Your task to perform on an android device: turn on airplane mode Image 0: 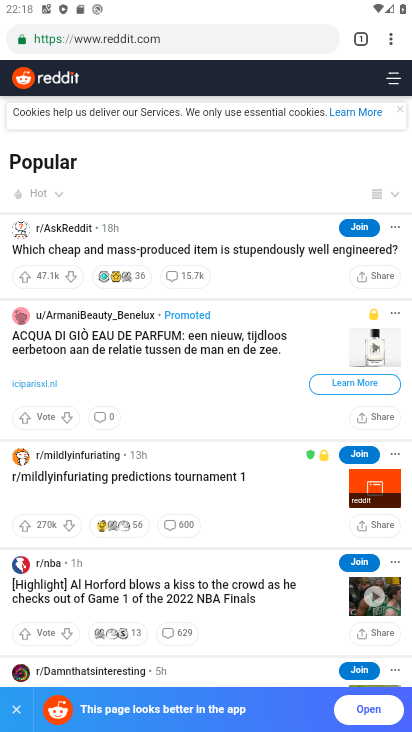
Step 0: press home button
Your task to perform on an android device: turn on airplane mode Image 1: 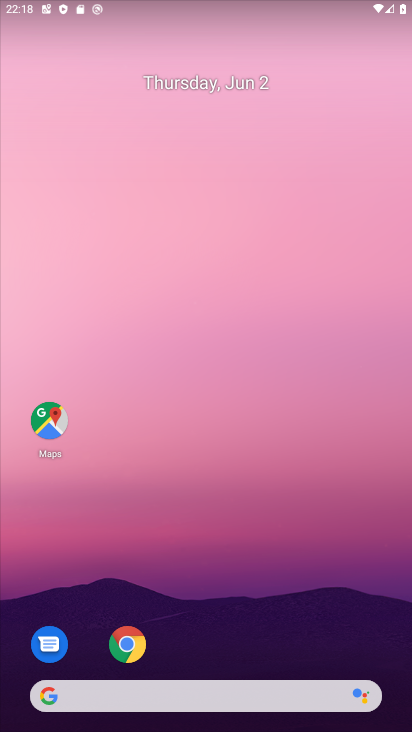
Step 1: click (52, 426)
Your task to perform on an android device: turn on airplane mode Image 2: 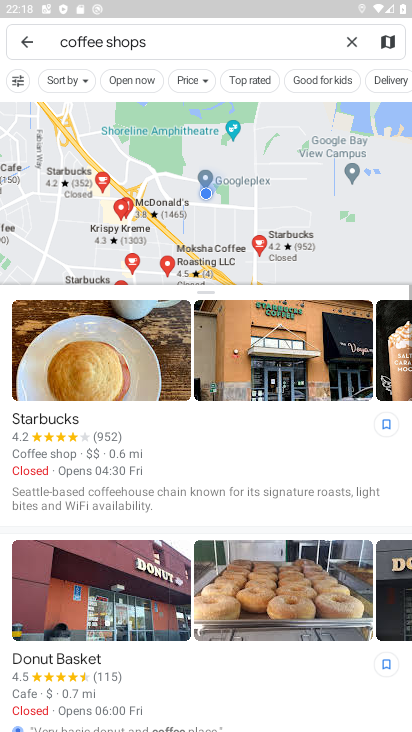
Step 2: press home button
Your task to perform on an android device: turn on airplane mode Image 3: 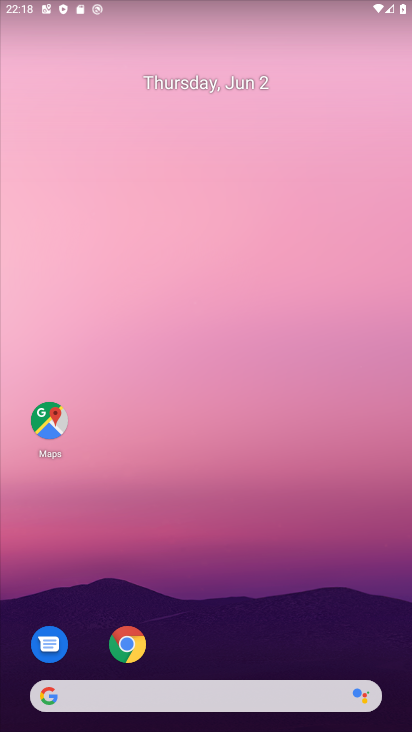
Step 3: drag from (191, 657) to (149, 216)
Your task to perform on an android device: turn on airplane mode Image 4: 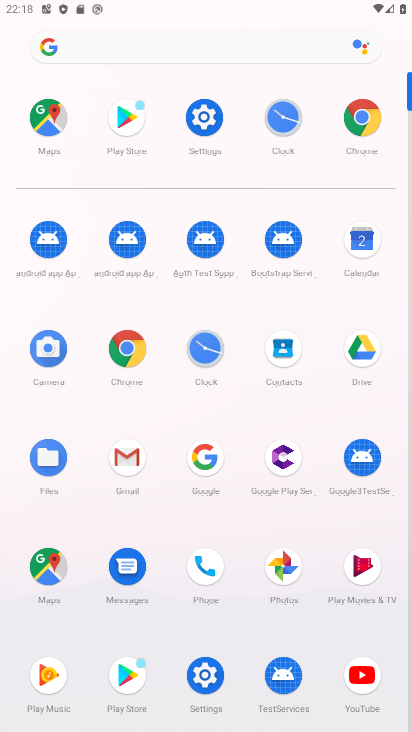
Step 4: click (195, 683)
Your task to perform on an android device: turn on airplane mode Image 5: 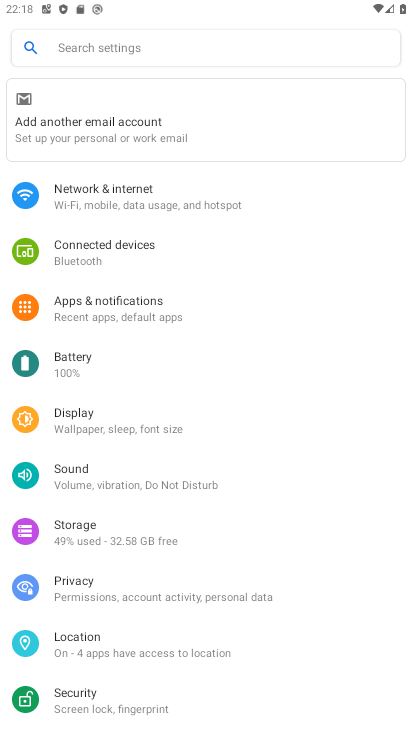
Step 5: click (92, 220)
Your task to perform on an android device: turn on airplane mode Image 6: 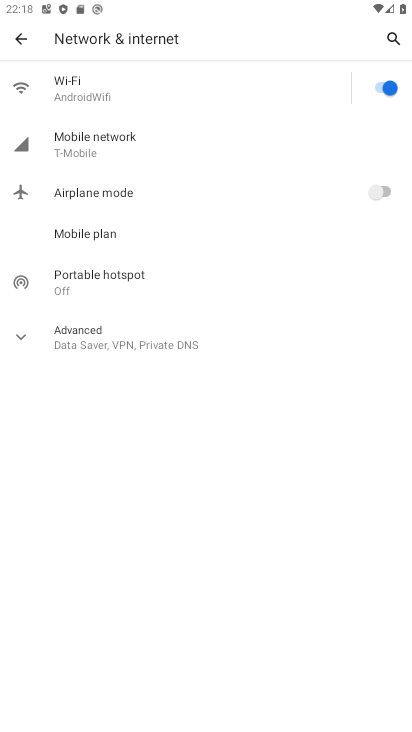
Step 6: click (385, 193)
Your task to perform on an android device: turn on airplane mode Image 7: 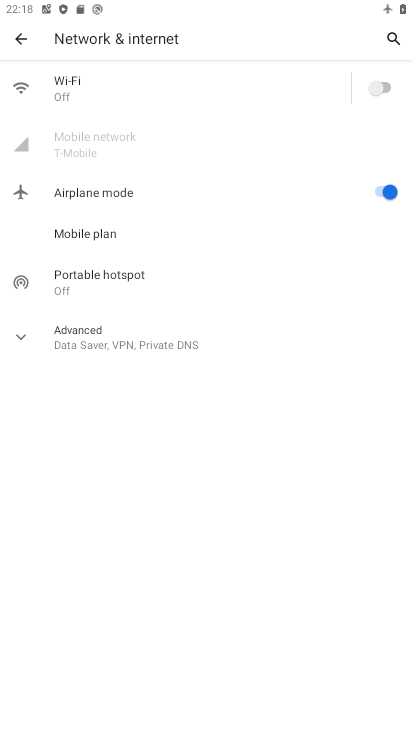
Step 7: task complete